Your task to perform on an android device: refresh tabs in the chrome app Image 0: 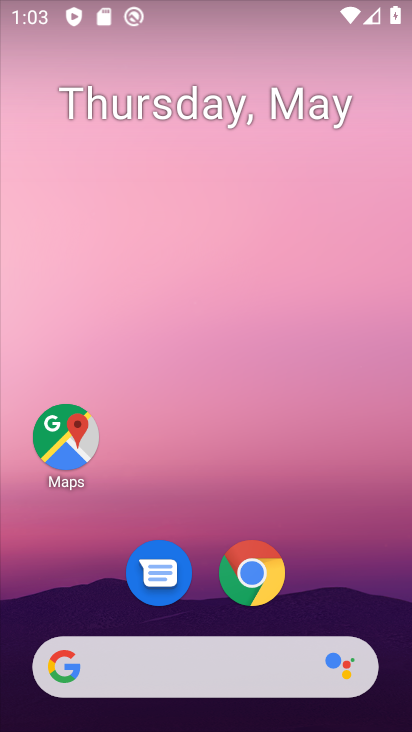
Step 0: click (271, 567)
Your task to perform on an android device: refresh tabs in the chrome app Image 1: 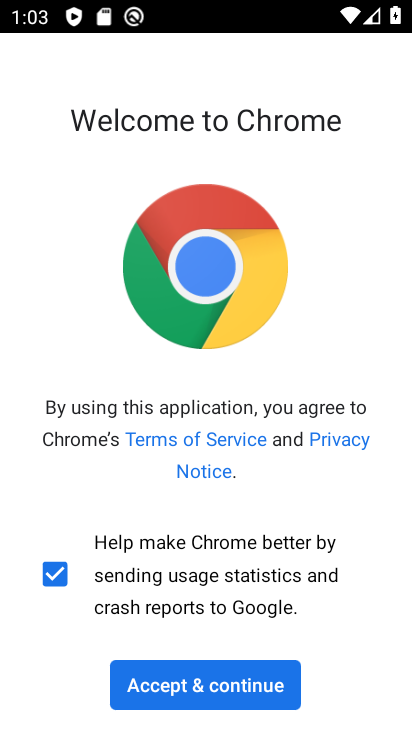
Step 1: click (231, 677)
Your task to perform on an android device: refresh tabs in the chrome app Image 2: 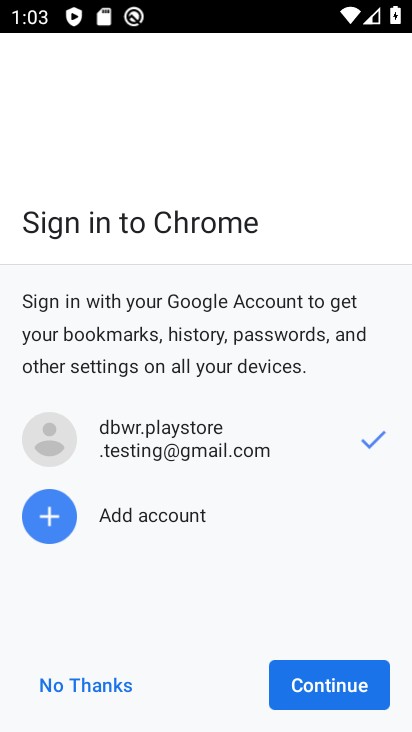
Step 2: click (280, 692)
Your task to perform on an android device: refresh tabs in the chrome app Image 3: 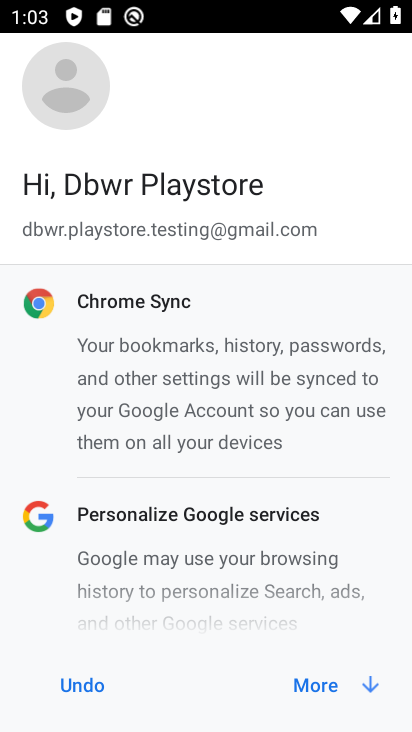
Step 3: click (280, 692)
Your task to perform on an android device: refresh tabs in the chrome app Image 4: 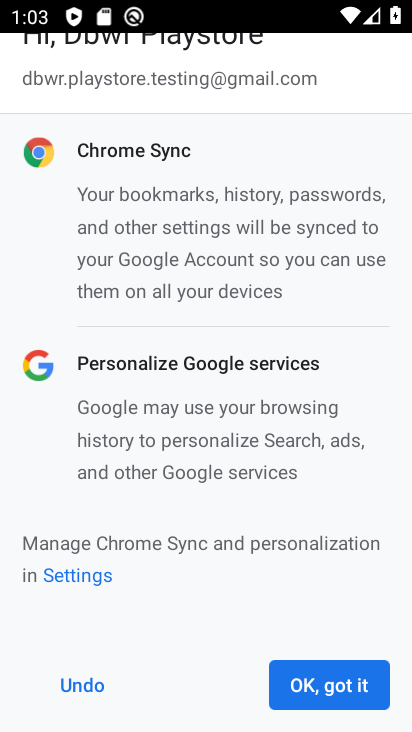
Step 4: click (334, 682)
Your task to perform on an android device: refresh tabs in the chrome app Image 5: 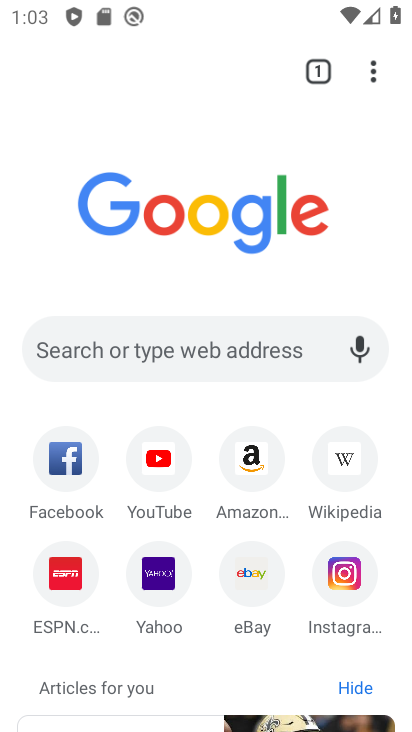
Step 5: click (368, 96)
Your task to perform on an android device: refresh tabs in the chrome app Image 6: 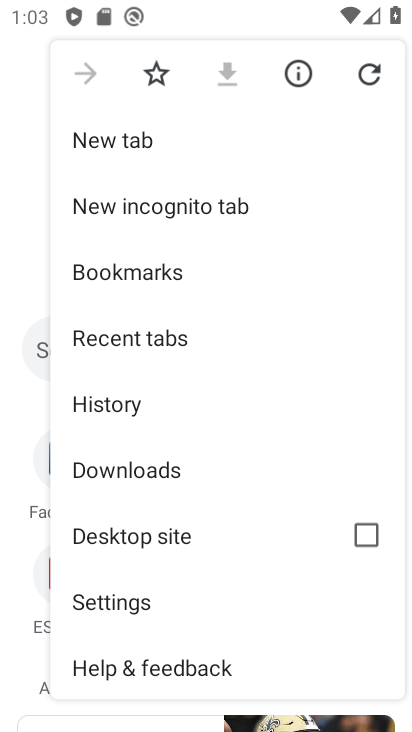
Step 6: click (366, 65)
Your task to perform on an android device: refresh tabs in the chrome app Image 7: 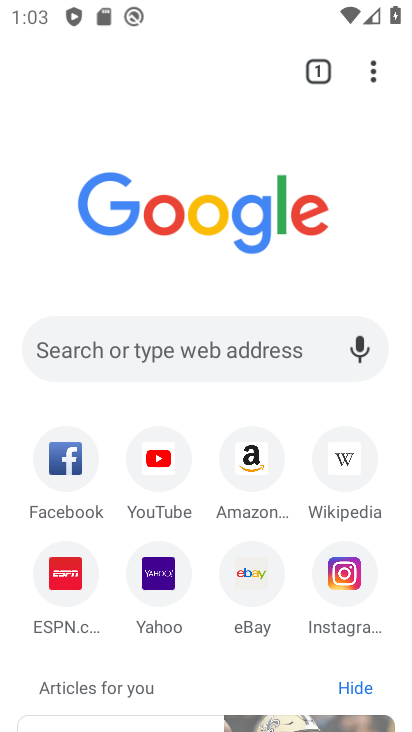
Step 7: task complete